Your task to perform on an android device: allow notifications from all sites in the chrome app Image 0: 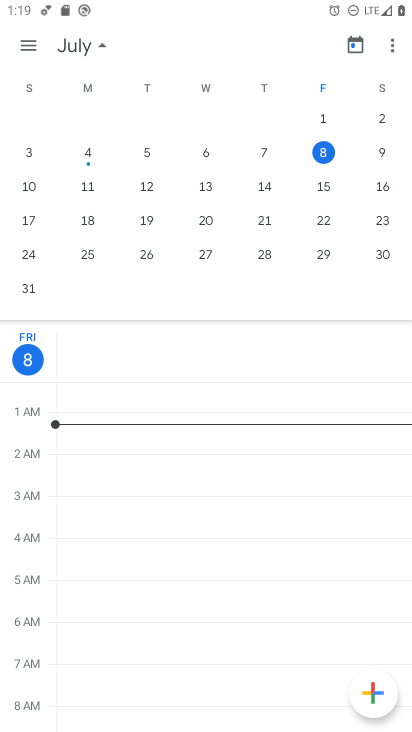
Step 0: press home button
Your task to perform on an android device: allow notifications from all sites in the chrome app Image 1: 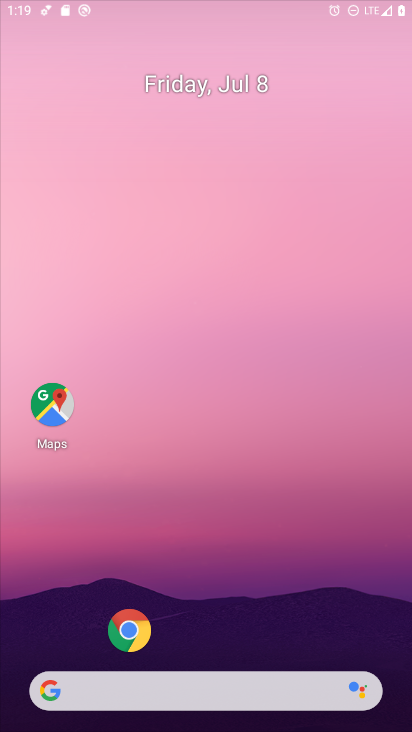
Step 1: drag from (245, 566) to (298, 6)
Your task to perform on an android device: allow notifications from all sites in the chrome app Image 2: 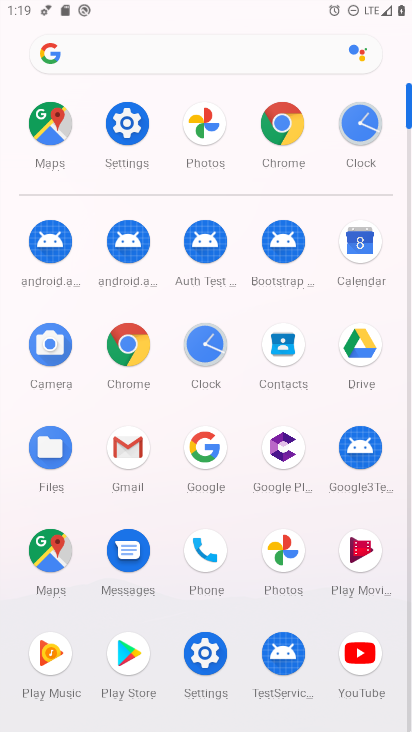
Step 2: click (119, 347)
Your task to perform on an android device: allow notifications from all sites in the chrome app Image 3: 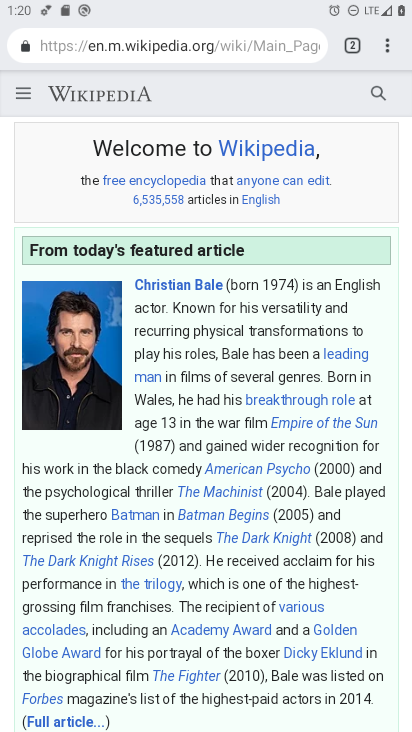
Step 3: drag from (387, 42) to (337, 125)
Your task to perform on an android device: allow notifications from all sites in the chrome app Image 4: 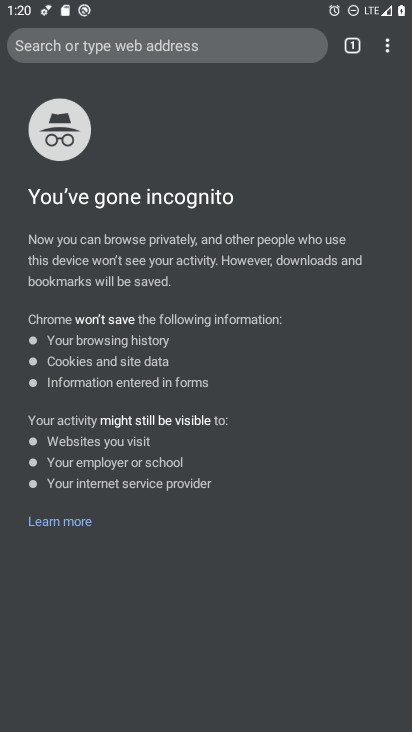
Step 4: drag from (410, 731) to (88, 4)
Your task to perform on an android device: allow notifications from all sites in the chrome app Image 5: 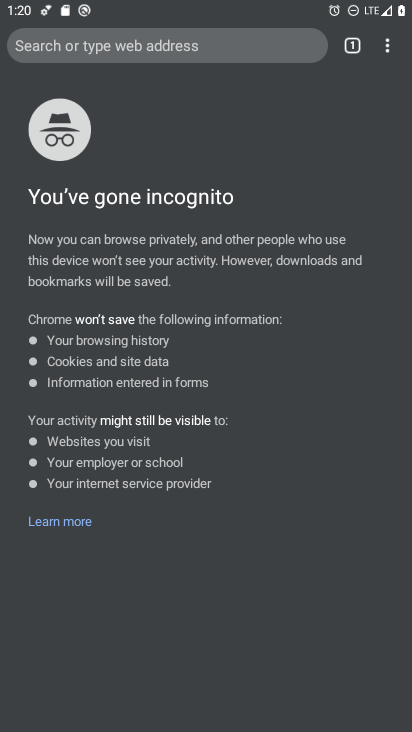
Step 5: press home button
Your task to perform on an android device: allow notifications from all sites in the chrome app Image 6: 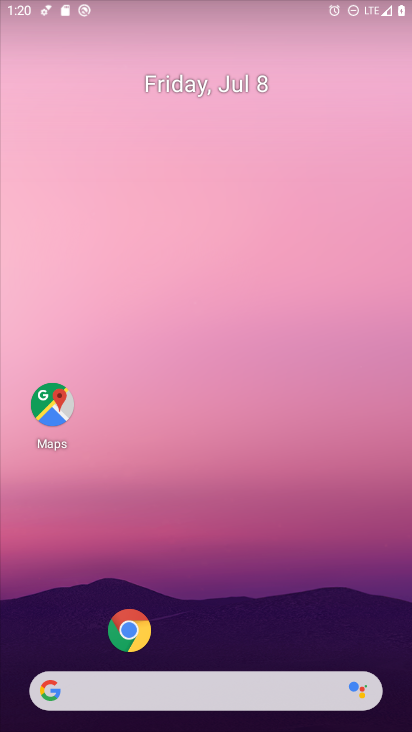
Step 6: drag from (234, 652) to (237, 2)
Your task to perform on an android device: allow notifications from all sites in the chrome app Image 7: 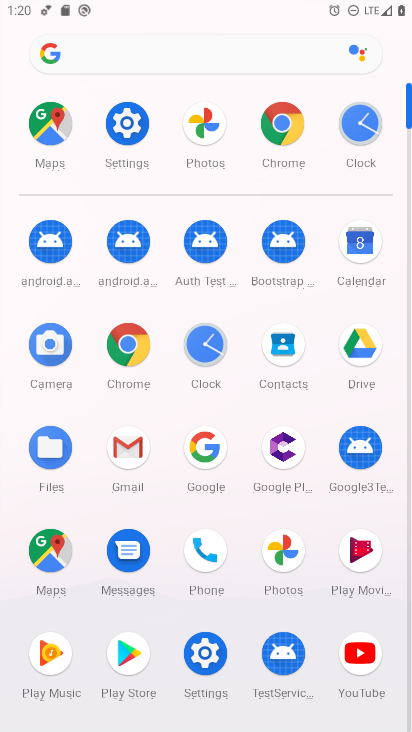
Step 7: click (190, 306)
Your task to perform on an android device: allow notifications from all sites in the chrome app Image 8: 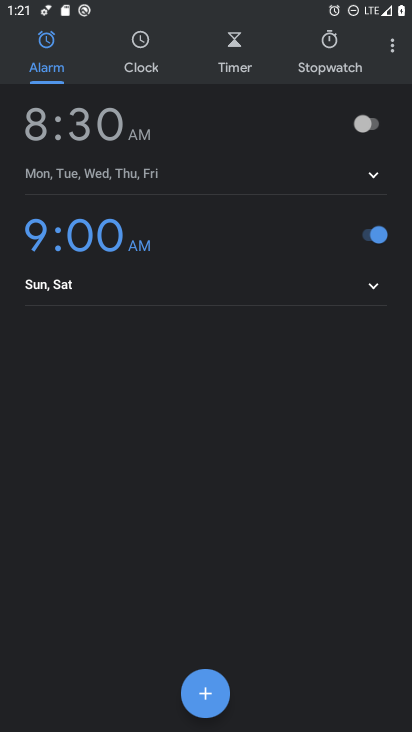
Step 8: press home button
Your task to perform on an android device: allow notifications from all sites in the chrome app Image 9: 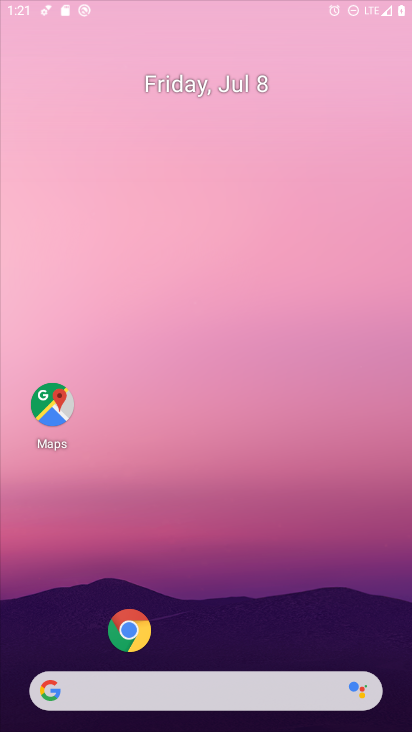
Step 9: drag from (199, 694) to (288, 92)
Your task to perform on an android device: allow notifications from all sites in the chrome app Image 10: 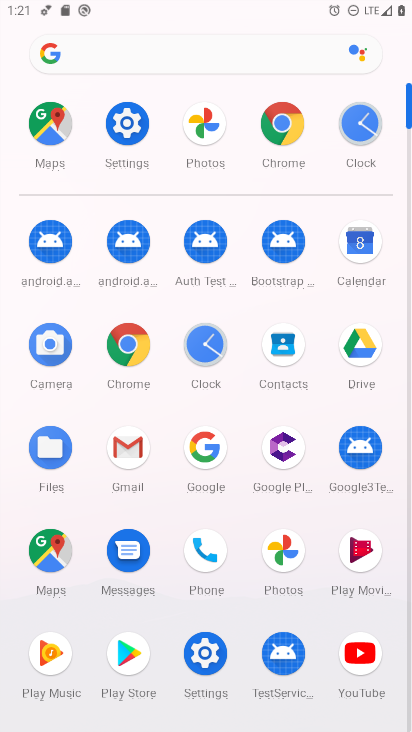
Step 10: click (126, 335)
Your task to perform on an android device: allow notifications from all sites in the chrome app Image 11: 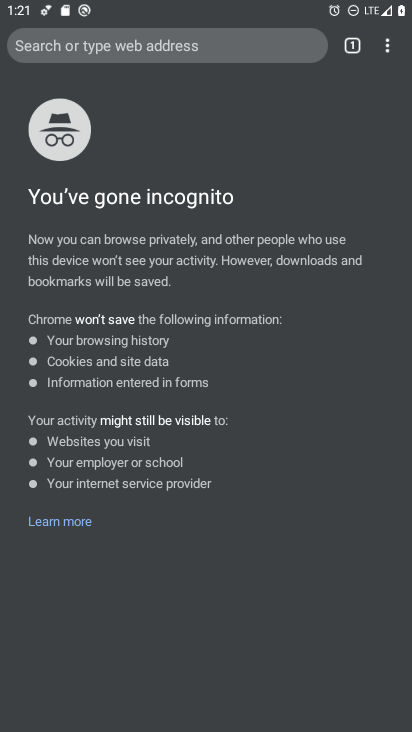
Step 11: press home button
Your task to perform on an android device: allow notifications from all sites in the chrome app Image 12: 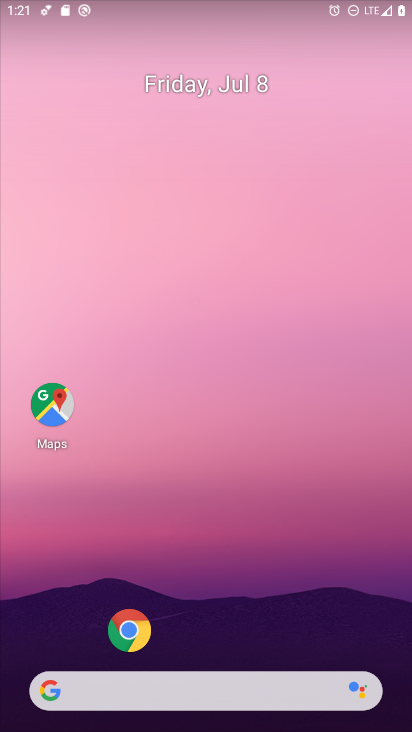
Step 12: click (198, 266)
Your task to perform on an android device: allow notifications from all sites in the chrome app Image 13: 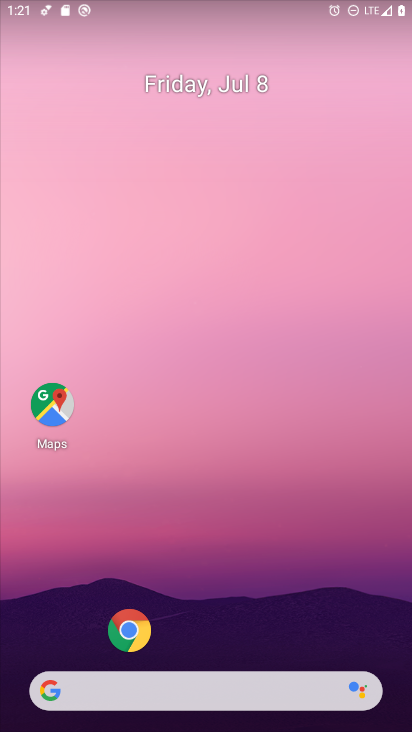
Step 13: drag from (207, 699) to (244, 144)
Your task to perform on an android device: allow notifications from all sites in the chrome app Image 14: 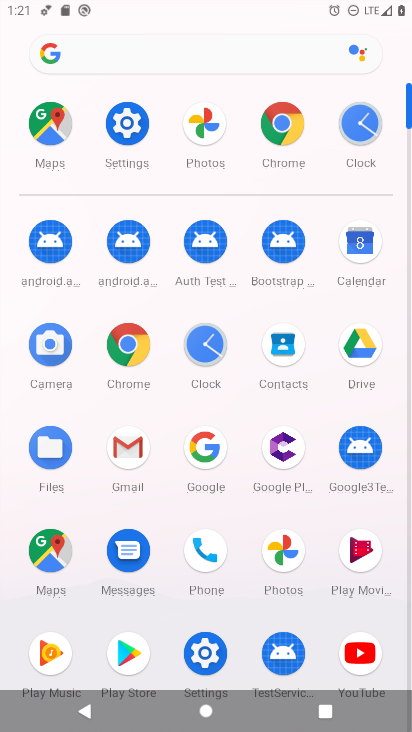
Step 14: click (130, 338)
Your task to perform on an android device: allow notifications from all sites in the chrome app Image 15: 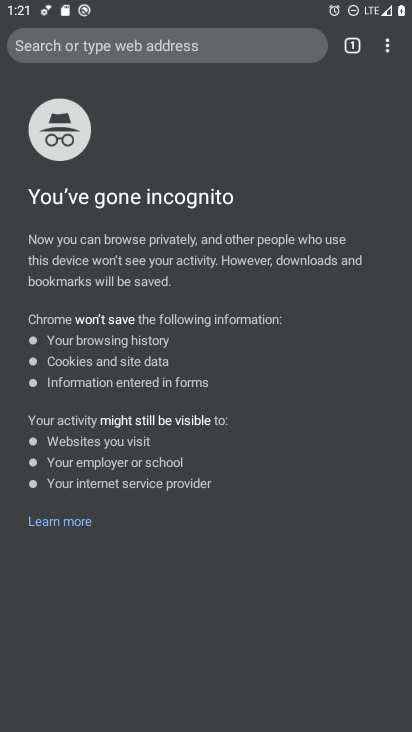
Step 15: drag from (383, 46) to (220, 350)
Your task to perform on an android device: allow notifications from all sites in the chrome app Image 16: 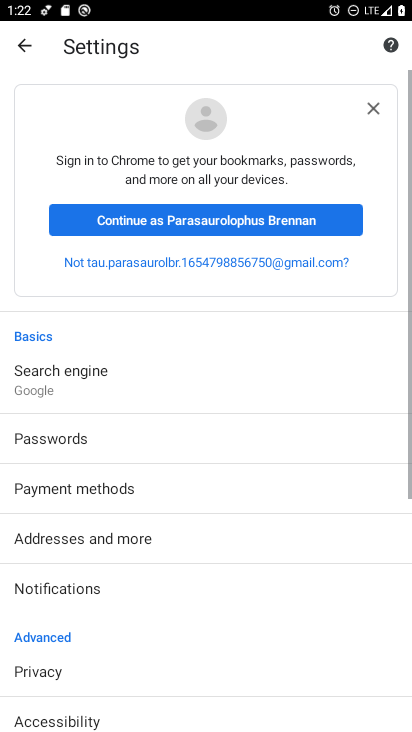
Step 16: drag from (194, 615) to (244, 201)
Your task to perform on an android device: allow notifications from all sites in the chrome app Image 17: 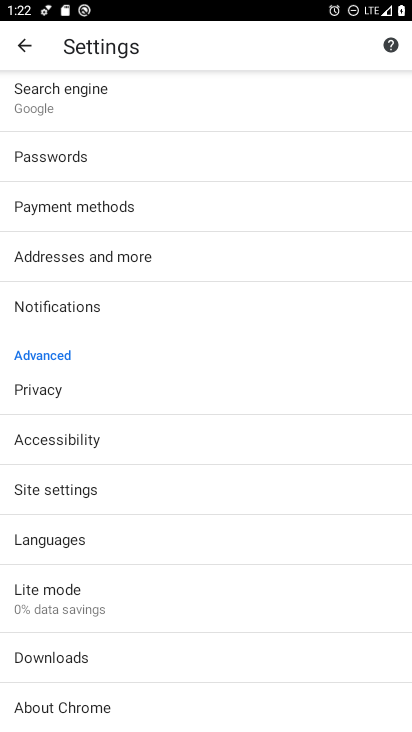
Step 17: click (96, 492)
Your task to perform on an android device: allow notifications from all sites in the chrome app Image 18: 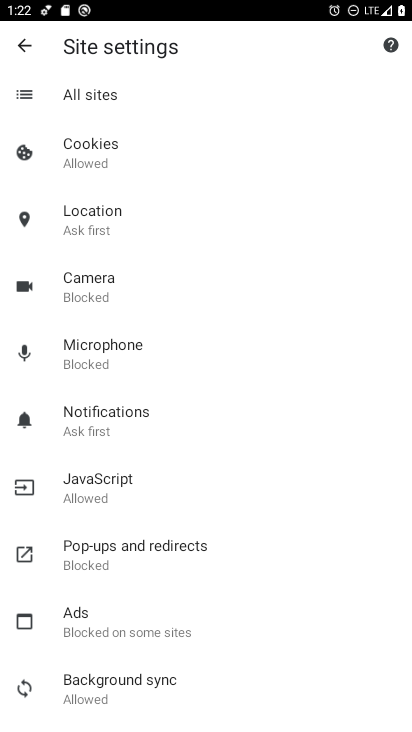
Step 18: click (117, 431)
Your task to perform on an android device: allow notifications from all sites in the chrome app Image 19: 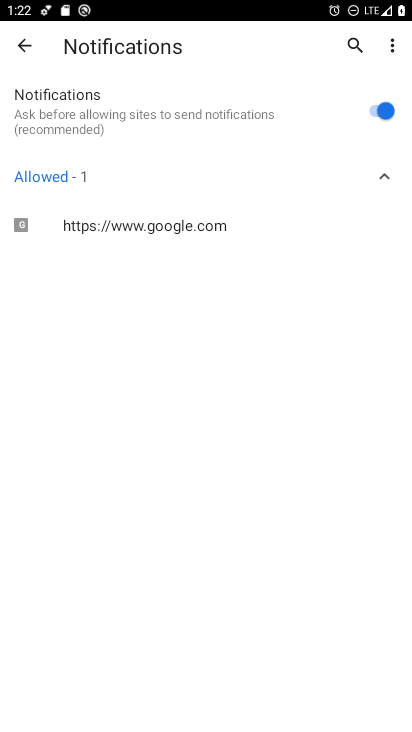
Step 19: task complete